Your task to perform on an android device: choose inbox layout in the gmail app Image 0: 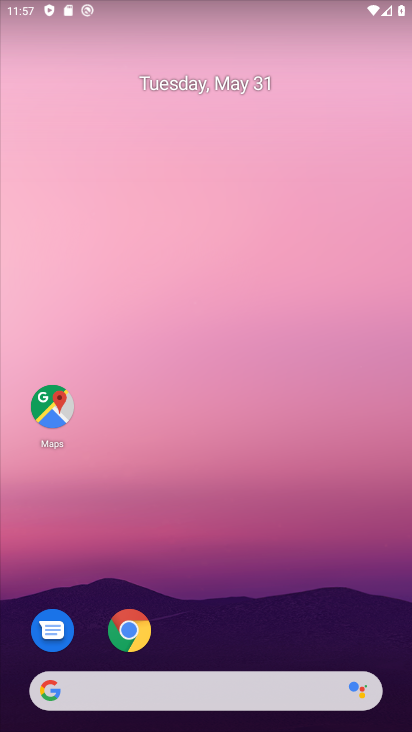
Step 0: drag from (364, 623) to (354, 172)
Your task to perform on an android device: choose inbox layout in the gmail app Image 1: 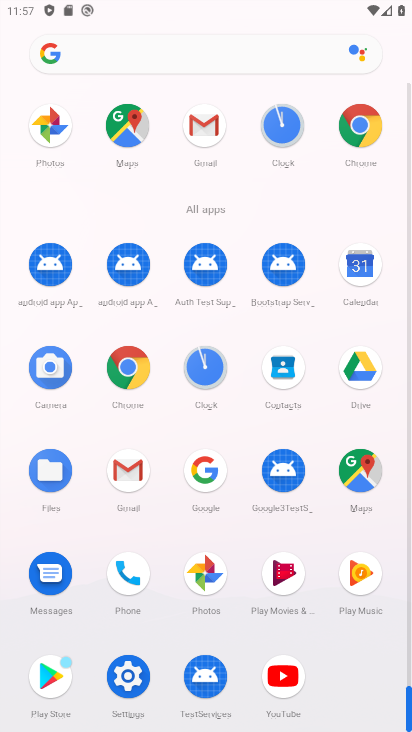
Step 1: click (129, 480)
Your task to perform on an android device: choose inbox layout in the gmail app Image 2: 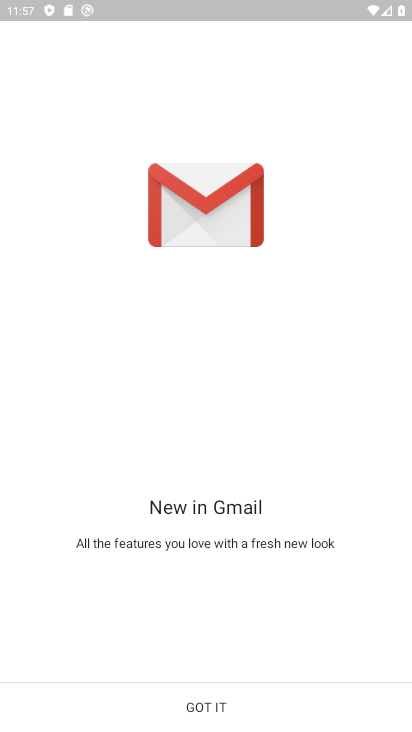
Step 2: click (217, 702)
Your task to perform on an android device: choose inbox layout in the gmail app Image 3: 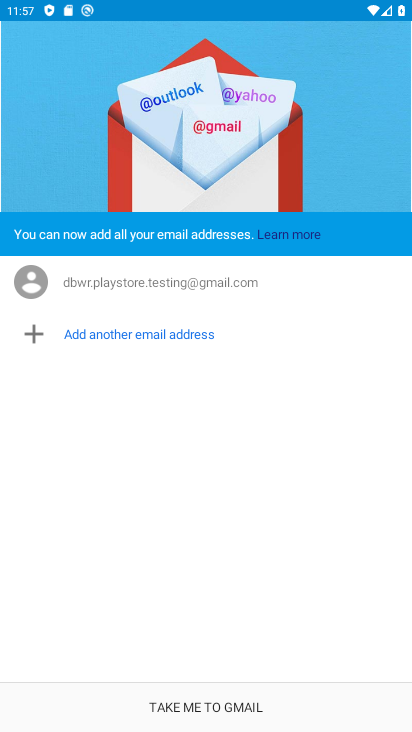
Step 3: click (217, 702)
Your task to perform on an android device: choose inbox layout in the gmail app Image 4: 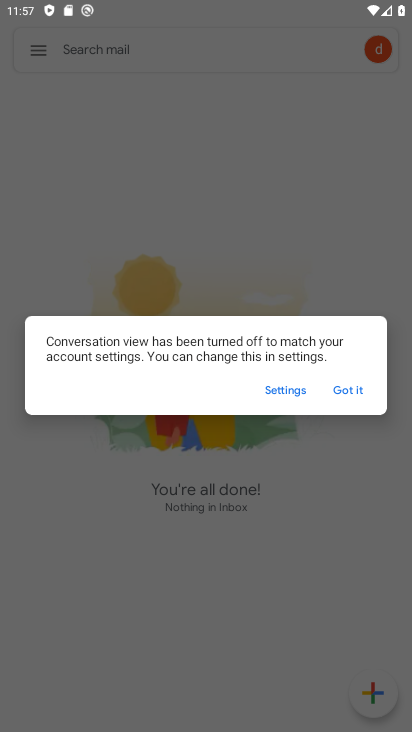
Step 4: click (346, 399)
Your task to perform on an android device: choose inbox layout in the gmail app Image 5: 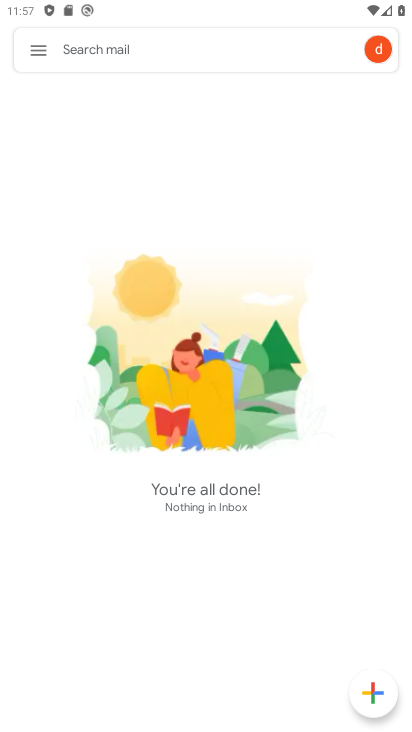
Step 5: click (43, 55)
Your task to perform on an android device: choose inbox layout in the gmail app Image 6: 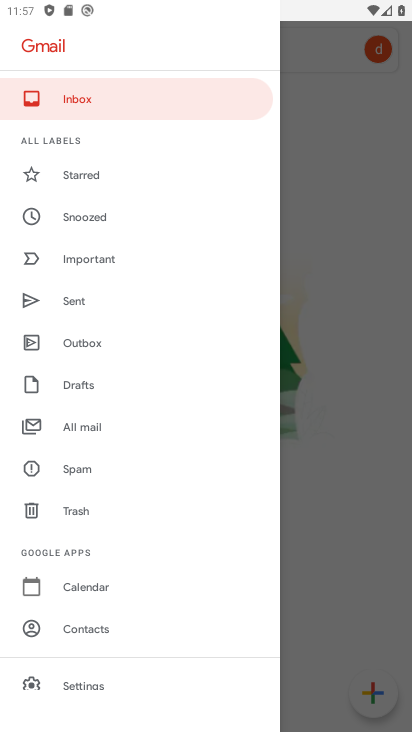
Step 6: drag from (202, 515) to (197, 375)
Your task to perform on an android device: choose inbox layout in the gmail app Image 7: 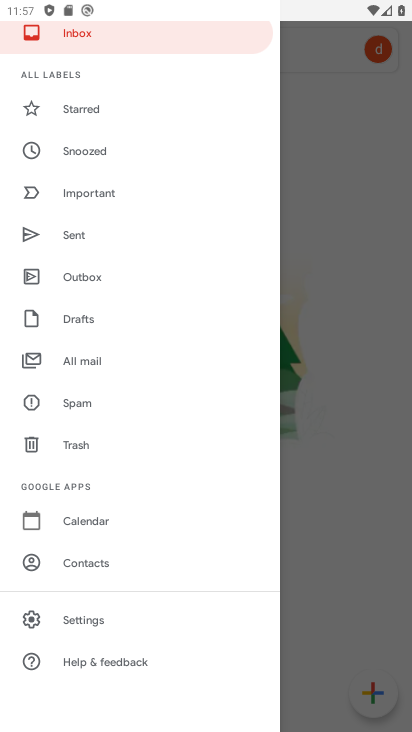
Step 7: click (134, 627)
Your task to perform on an android device: choose inbox layout in the gmail app Image 8: 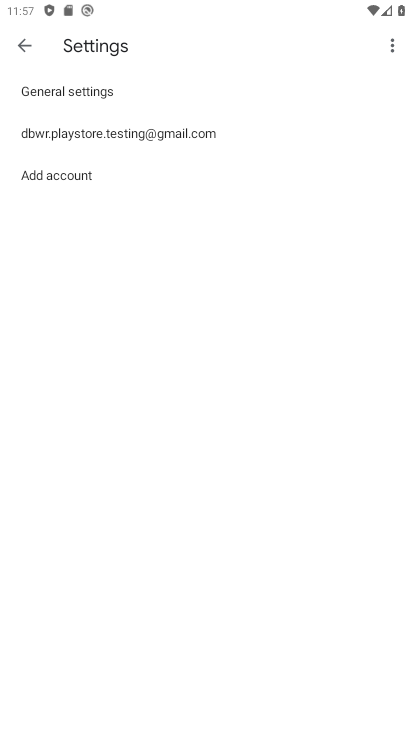
Step 8: click (194, 137)
Your task to perform on an android device: choose inbox layout in the gmail app Image 9: 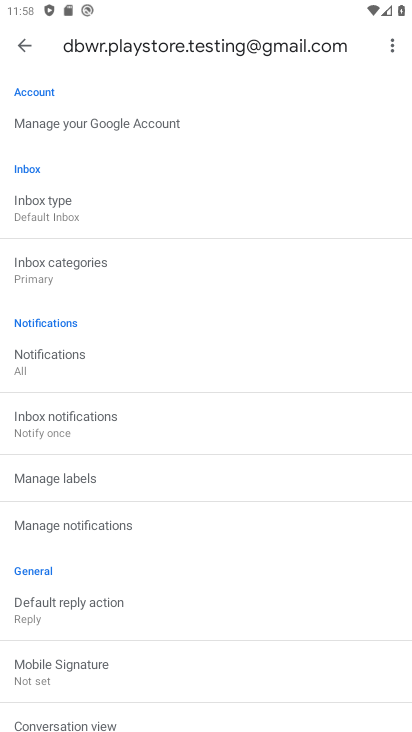
Step 9: drag from (302, 450) to (308, 361)
Your task to perform on an android device: choose inbox layout in the gmail app Image 10: 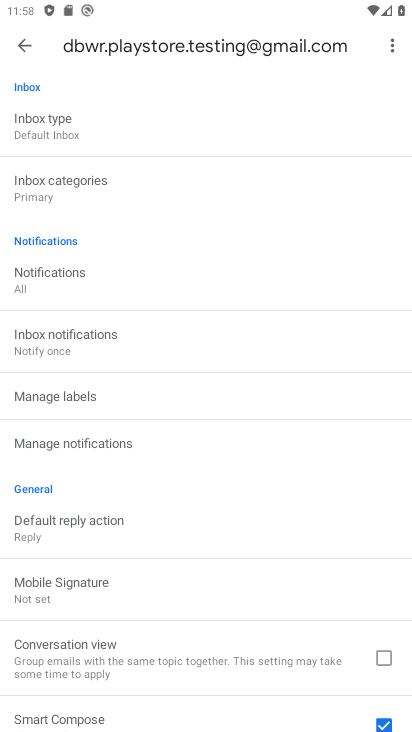
Step 10: click (74, 130)
Your task to perform on an android device: choose inbox layout in the gmail app Image 11: 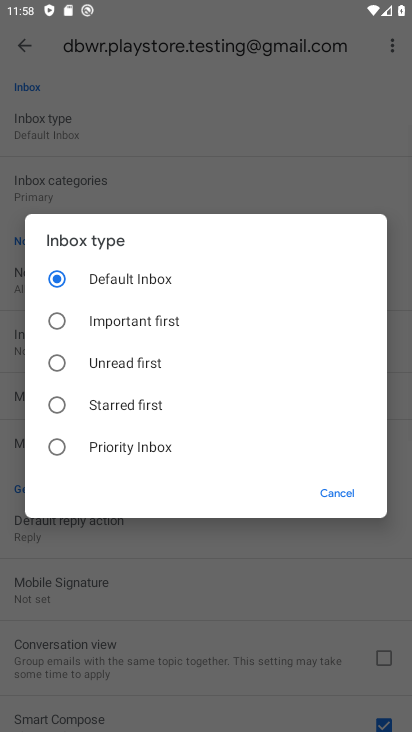
Step 11: click (159, 369)
Your task to perform on an android device: choose inbox layout in the gmail app Image 12: 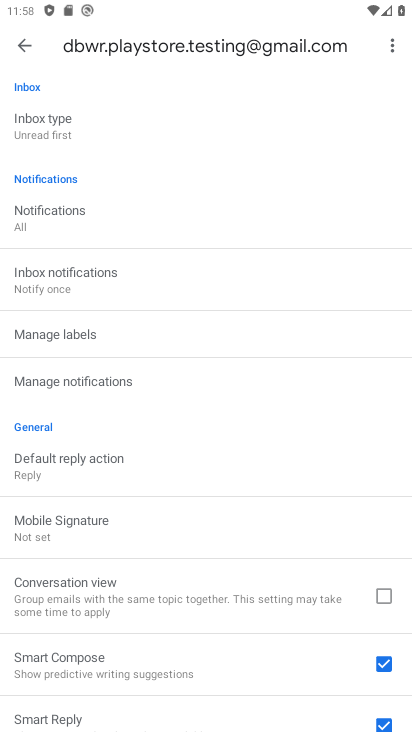
Step 12: task complete